Your task to perform on an android device: open chrome privacy settings Image 0: 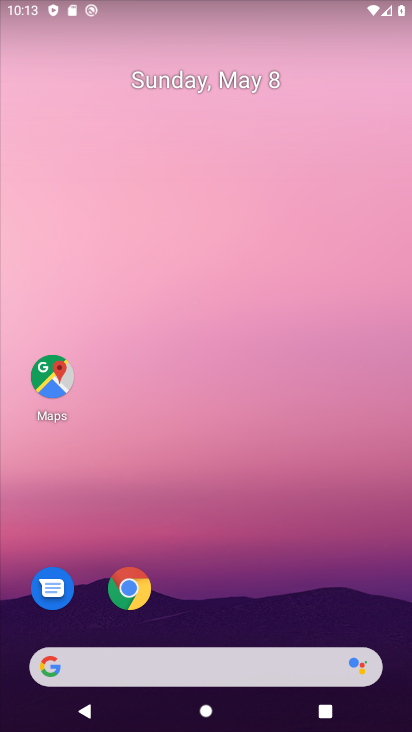
Step 0: click (137, 582)
Your task to perform on an android device: open chrome privacy settings Image 1: 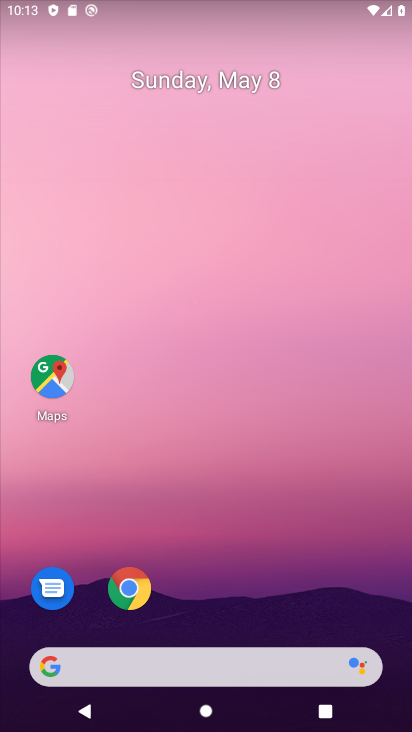
Step 1: click (137, 582)
Your task to perform on an android device: open chrome privacy settings Image 2: 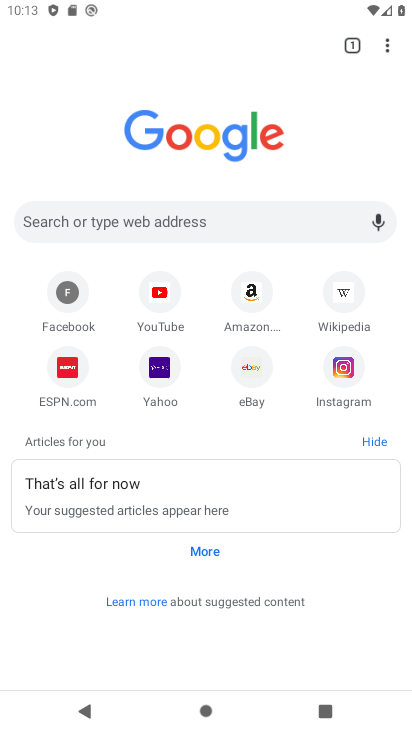
Step 2: drag from (389, 41) to (311, 380)
Your task to perform on an android device: open chrome privacy settings Image 3: 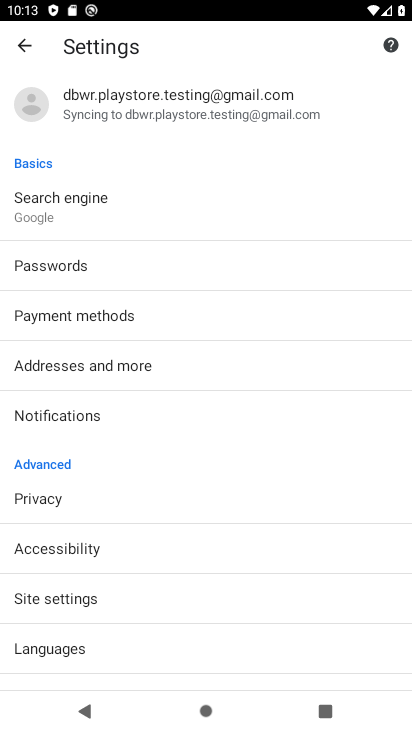
Step 3: click (120, 513)
Your task to perform on an android device: open chrome privacy settings Image 4: 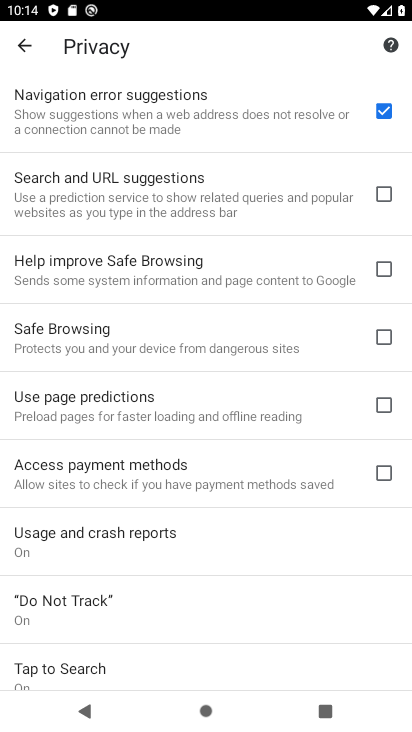
Step 4: task complete